Your task to perform on an android device: add a contact in the contacts app Image 0: 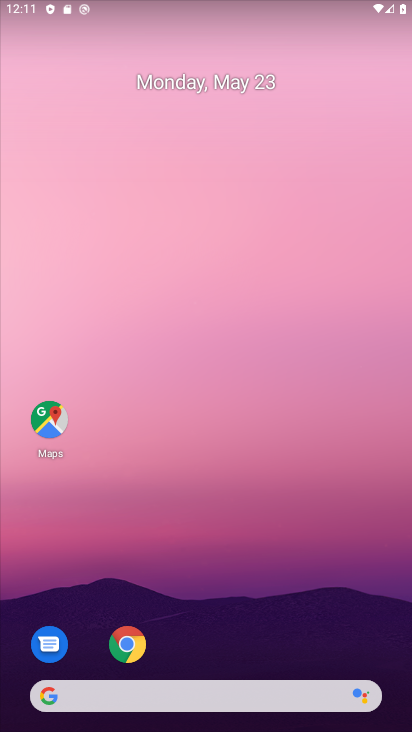
Step 0: click (389, 458)
Your task to perform on an android device: add a contact in the contacts app Image 1: 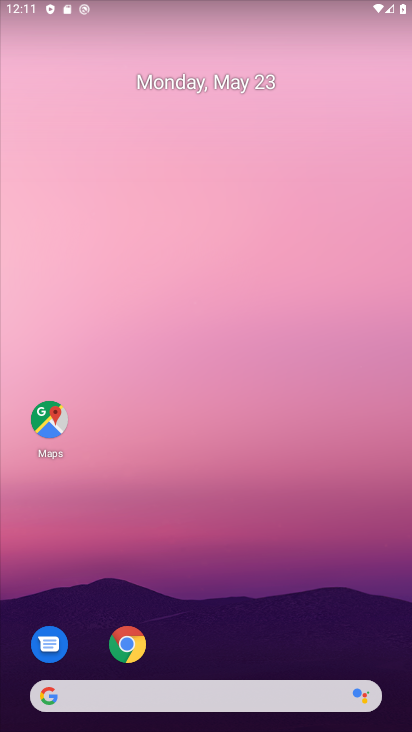
Step 1: drag from (253, 633) to (256, 65)
Your task to perform on an android device: add a contact in the contacts app Image 2: 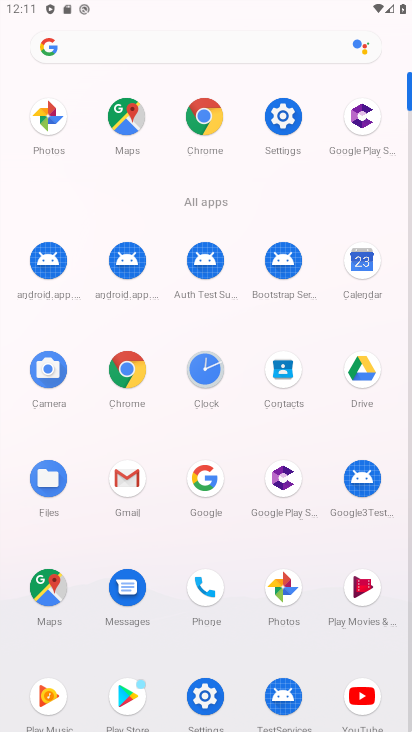
Step 2: click (282, 370)
Your task to perform on an android device: add a contact in the contacts app Image 3: 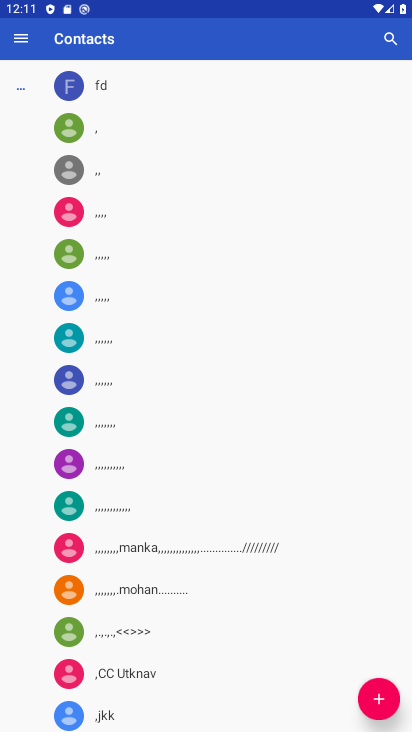
Step 3: click (381, 700)
Your task to perform on an android device: add a contact in the contacts app Image 4: 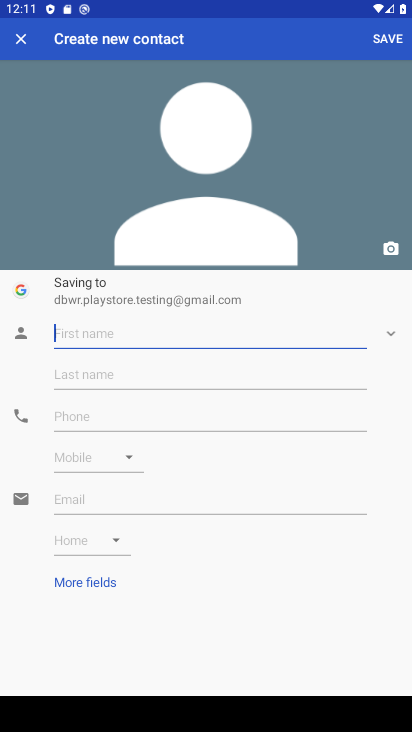
Step 4: type "fgdfb"
Your task to perform on an android device: add a contact in the contacts app Image 5: 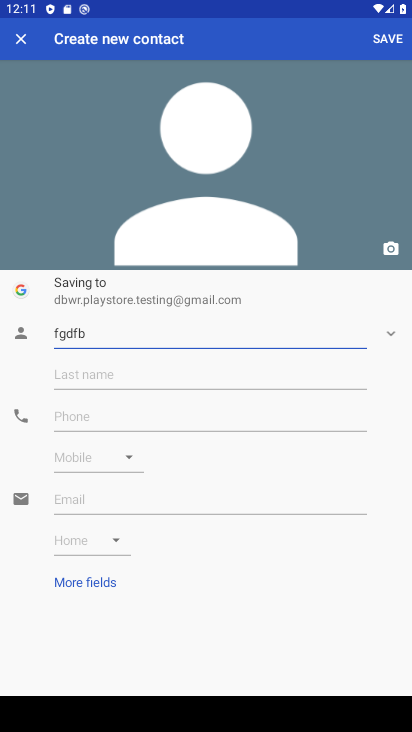
Step 5: click (144, 417)
Your task to perform on an android device: add a contact in the contacts app Image 6: 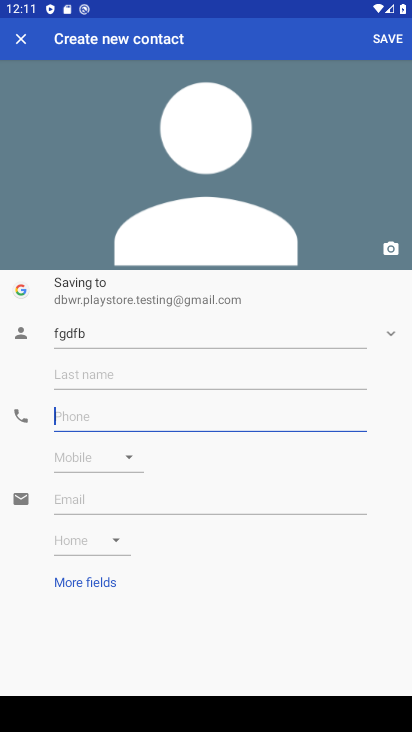
Step 6: type "455645767"
Your task to perform on an android device: add a contact in the contacts app Image 7: 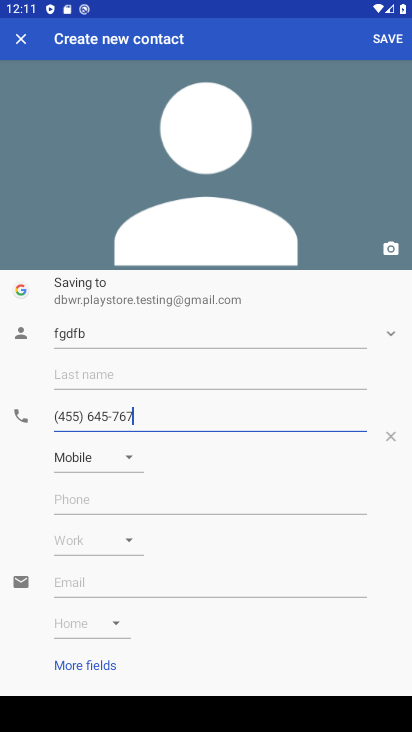
Step 7: click (386, 37)
Your task to perform on an android device: add a contact in the contacts app Image 8: 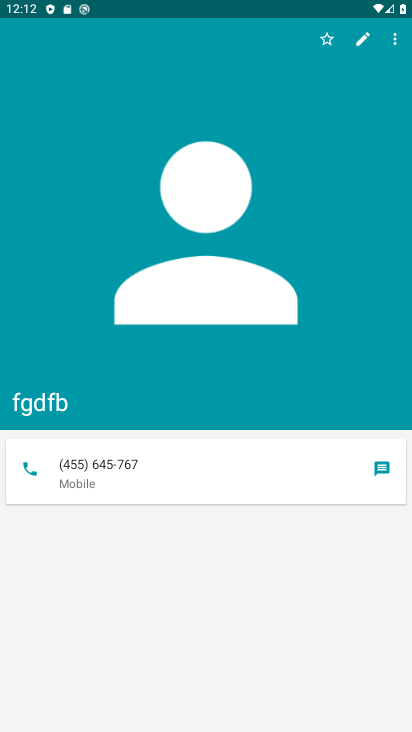
Step 8: task complete